Your task to perform on an android device: open the mobile data screen to see how much data has been used Image 0: 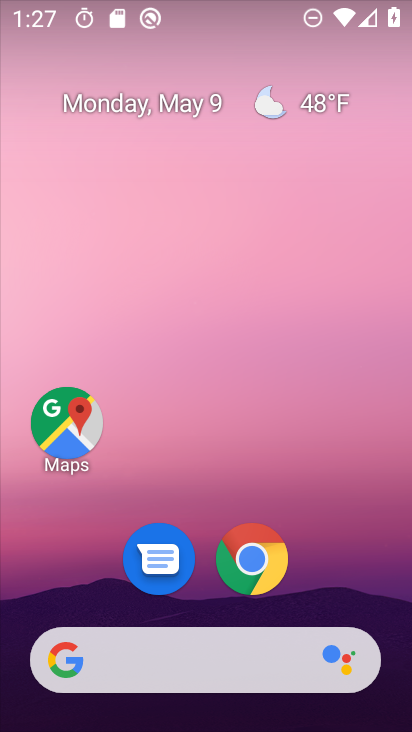
Step 0: drag from (220, 540) to (262, 225)
Your task to perform on an android device: open the mobile data screen to see how much data has been used Image 1: 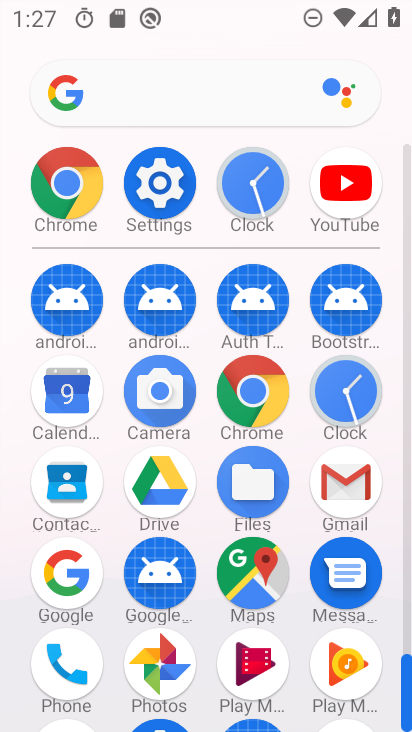
Step 1: drag from (191, 708) to (245, 242)
Your task to perform on an android device: open the mobile data screen to see how much data has been used Image 2: 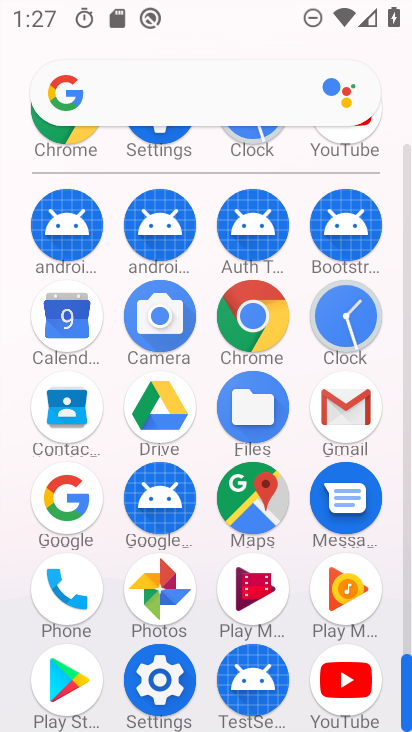
Step 2: drag from (205, 644) to (194, 358)
Your task to perform on an android device: open the mobile data screen to see how much data has been used Image 3: 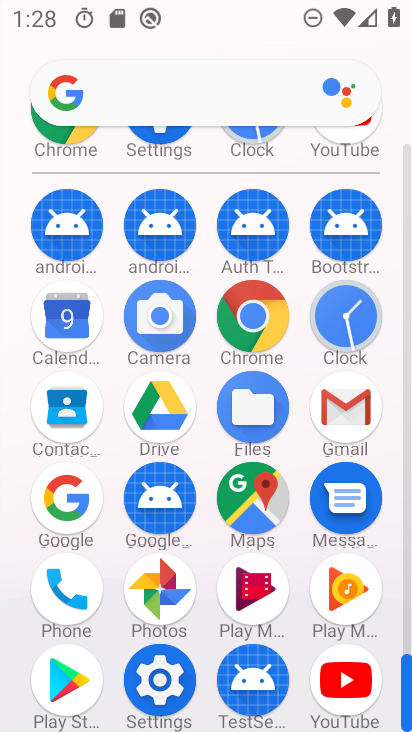
Step 3: drag from (202, 644) to (196, 358)
Your task to perform on an android device: open the mobile data screen to see how much data has been used Image 4: 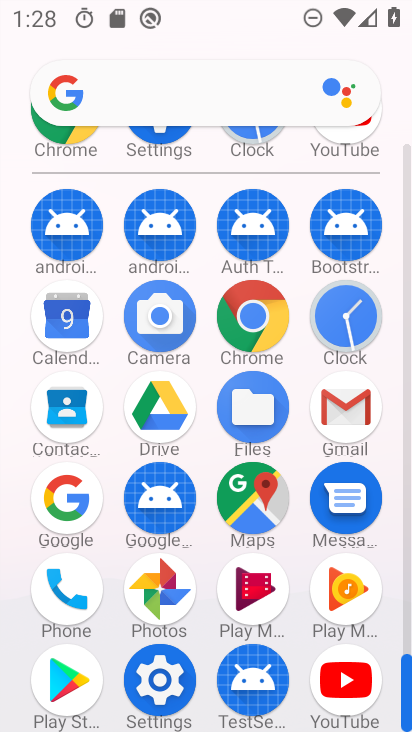
Step 4: drag from (199, 647) to (224, 418)
Your task to perform on an android device: open the mobile data screen to see how much data has been used Image 5: 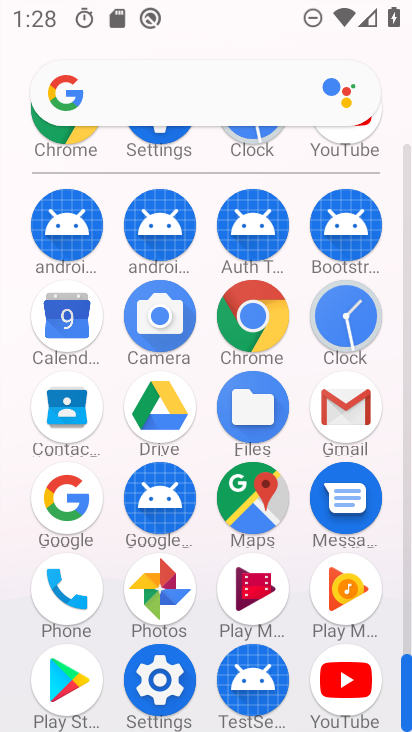
Step 5: click (171, 690)
Your task to perform on an android device: open the mobile data screen to see how much data has been used Image 6: 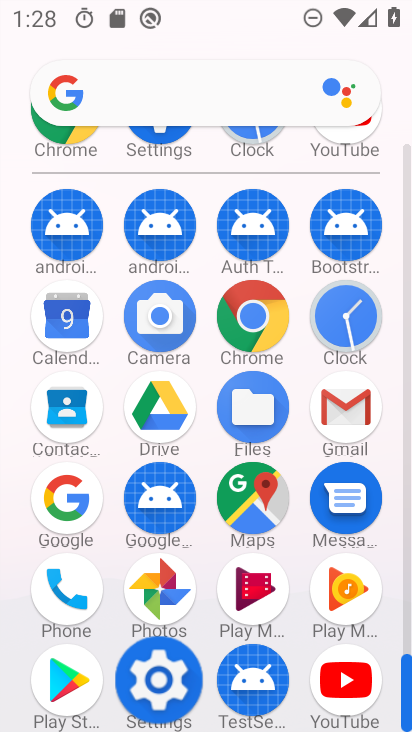
Step 6: click (171, 690)
Your task to perform on an android device: open the mobile data screen to see how much data has been used Image 7: 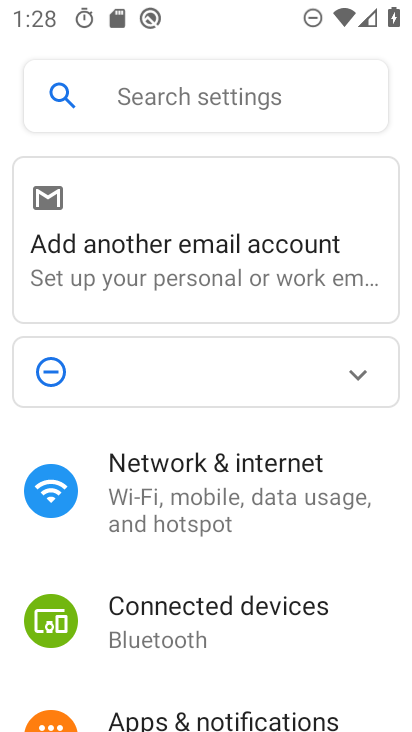
Step 7: drag from (244, 656) to (324, 139)
Your task to perform on an android device: open the mobile data screen to see how much data has been used Image 8: 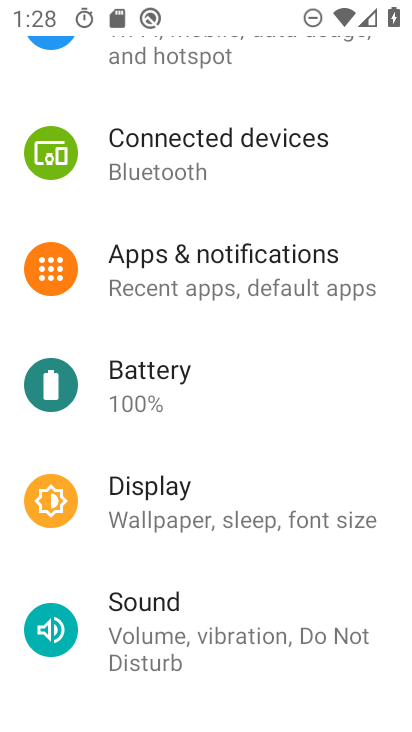
Step 8: drag from (171, 302) to (266, 674)
Your task to perform on an android device: open the mobile data screen to see how much data has been used Image 9: 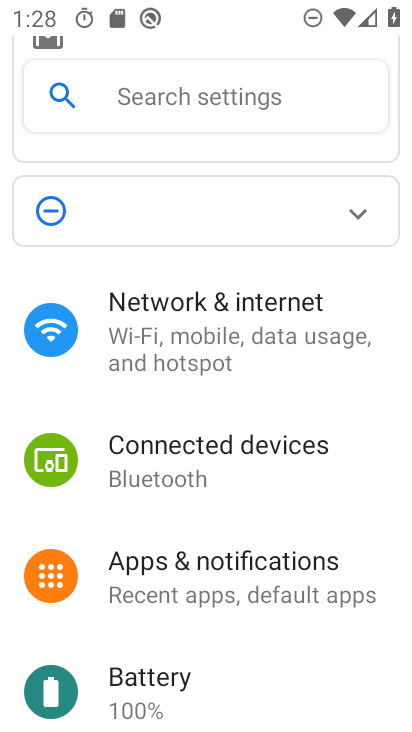
Step 9: drag from (179, 691) to (293, 179)
Your task to perform on an android device: open the mobile data screen to see how much data has been used Image 10: 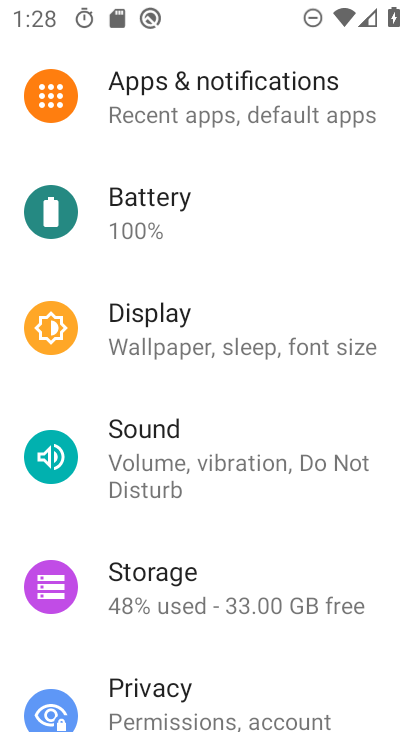
Step 10: drag from (194, 189) to (140, 728)
Your task to perform on an android device: open the mobile data screen to see how much data has been used Image 11: 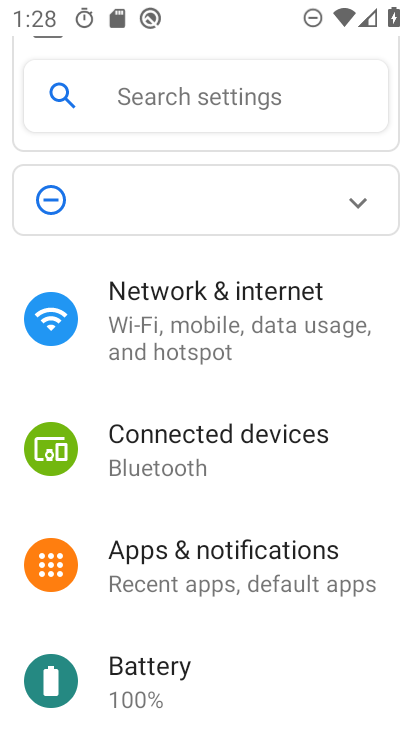
Step 11: click (186, 313)
Your task to perform on an android device: open the mobile data screen to see how much data has been used Image 12: 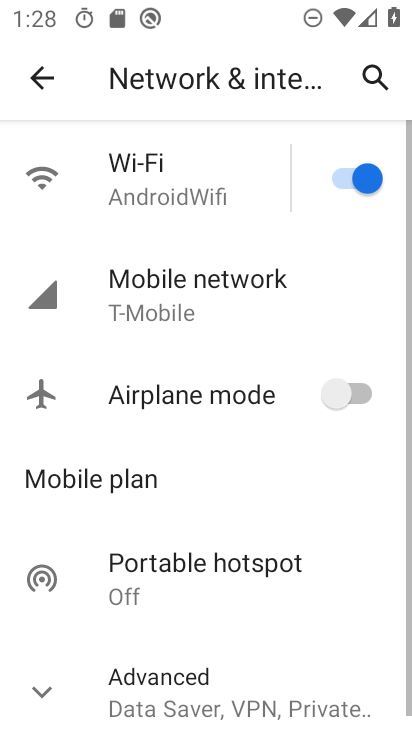
Step 12: click (198, 307)
Your task to perform on an android device: open the mobile data screen to see how much data has been used Image 13: 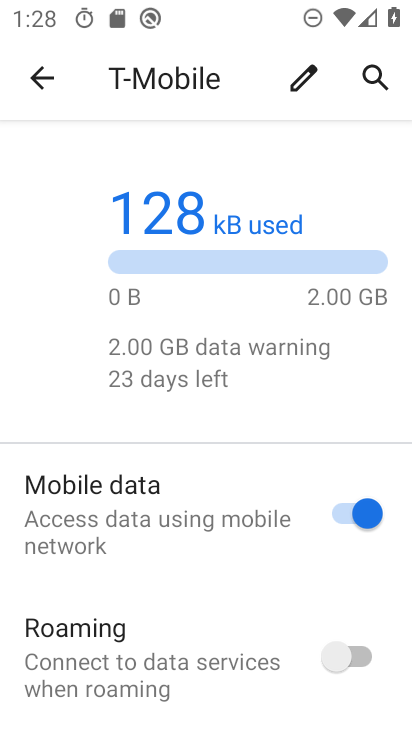
Step 13: task complete